Your task to perform on an android device: Clear the shopping cart on ebay. Add razer blade to the cart on ebay Image 0: 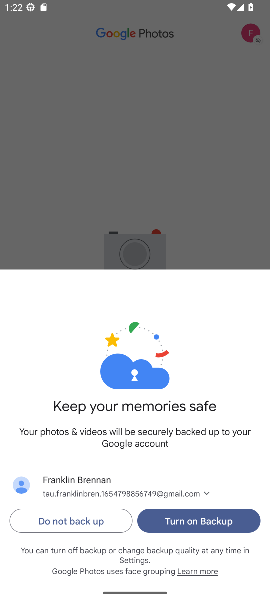
Step 0: press home button
Your task to perform on an android device: Clear the shopping cart on ebay. Add razer blade to the cart on ebay Image 1: 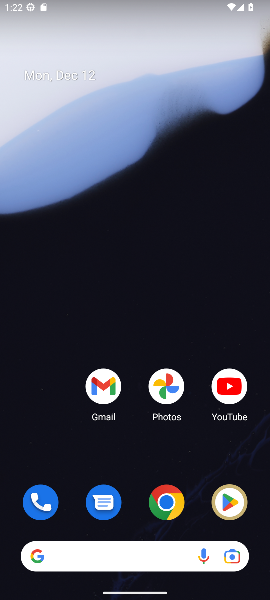
Step 1: click (164, 513)
Your task to perform on an android device: Clear the shopping cart on ebay. Add razer blade to the cart on ebay Image 2: 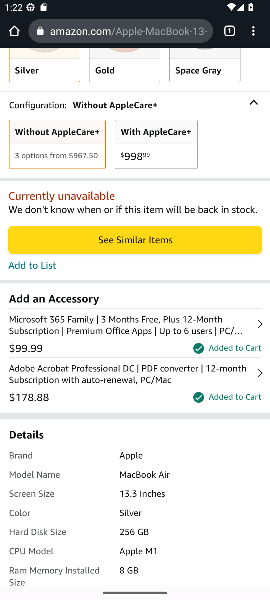
Step 2: click (165, 38)
Your task to perform on an android device: Clear the shopping cart on ebay. Add razer blade to the cart on ebay Image 3: 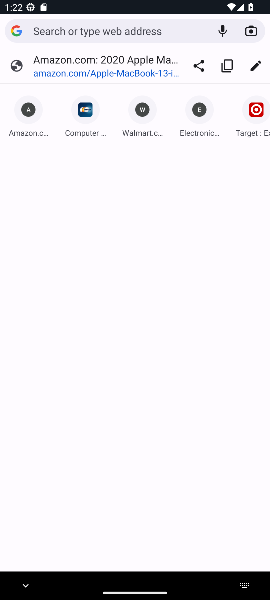
Step 3: type "ebay"
Your task to perform on an android device: Clear the shopping cart on ebay. Add razer blade to the cart on ebay Image 4: 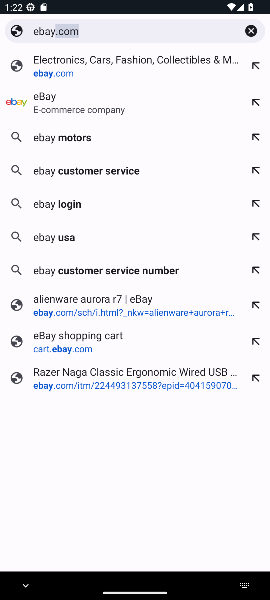
Step 4: click (155, 88)
Your task to perform on an android device: Clear the shopping cart on ebay. Add razer blade to the cart on ebay Image 5: 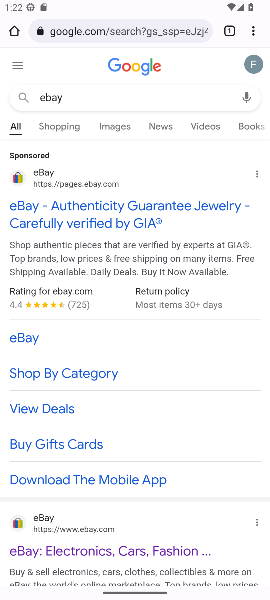
Step 5: click (48, 207)
Your task to perform on an android device: Clear the shopping cart on ebay. Add razer blade to the cart on ebay Image 6: 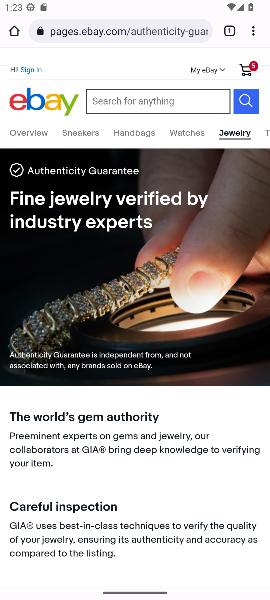
Step 6: click (123, 102)
Your task to perform on an android device: Clear the shopping cart on ebay. Add razer blade to the cart on ebay Image 7: 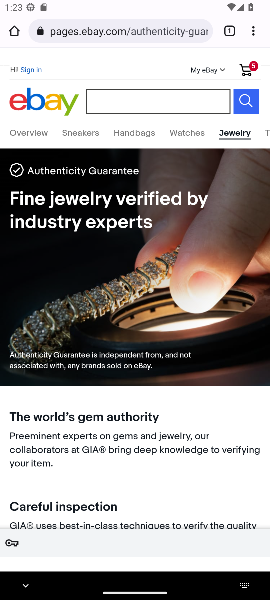
Step 7: type "razer blade"
Your task to perform on an android device: Clear the shopping cart on ebay. Add razer blade to the cart on ebay Image 8: 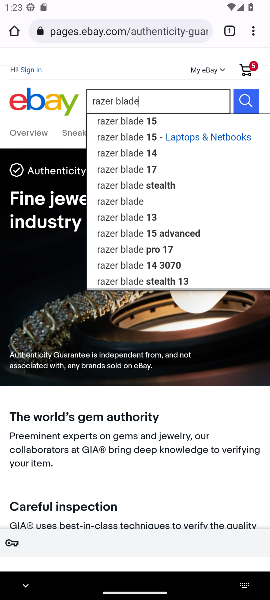
Step 8: click (247, 105)
Your task to perform on an android device: Clear the shopping cart on ebay. Add razer blade to the cart on ebay Image 9: 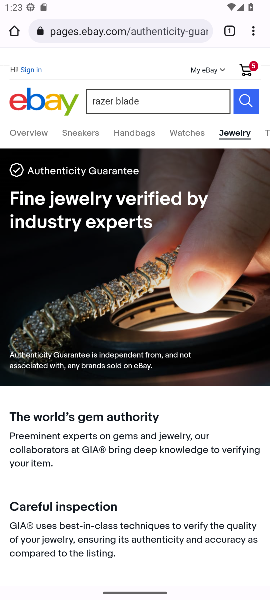
Step 9: task complete